Your task to perform on an android device: Clear the cart on costco.com. Search for "razer nari" on costco.com, select the first entry, and add it to the cart. Image 0: 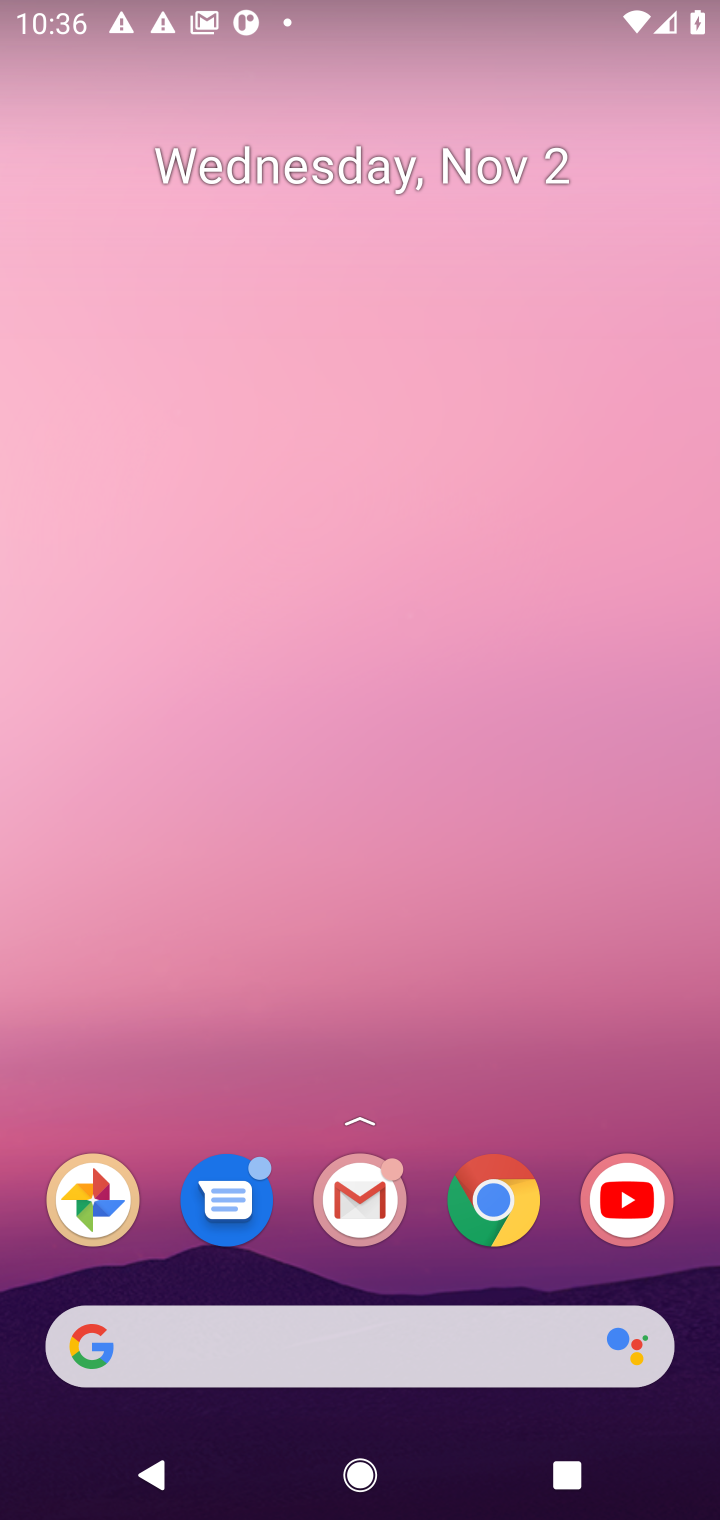
Step 0: click (515, 1214)
Your task to perform on an android device: Clear the cart on costco.com. Search for "razer nari" on costco.com, select the first entry, and add it to the cart. Image 1: 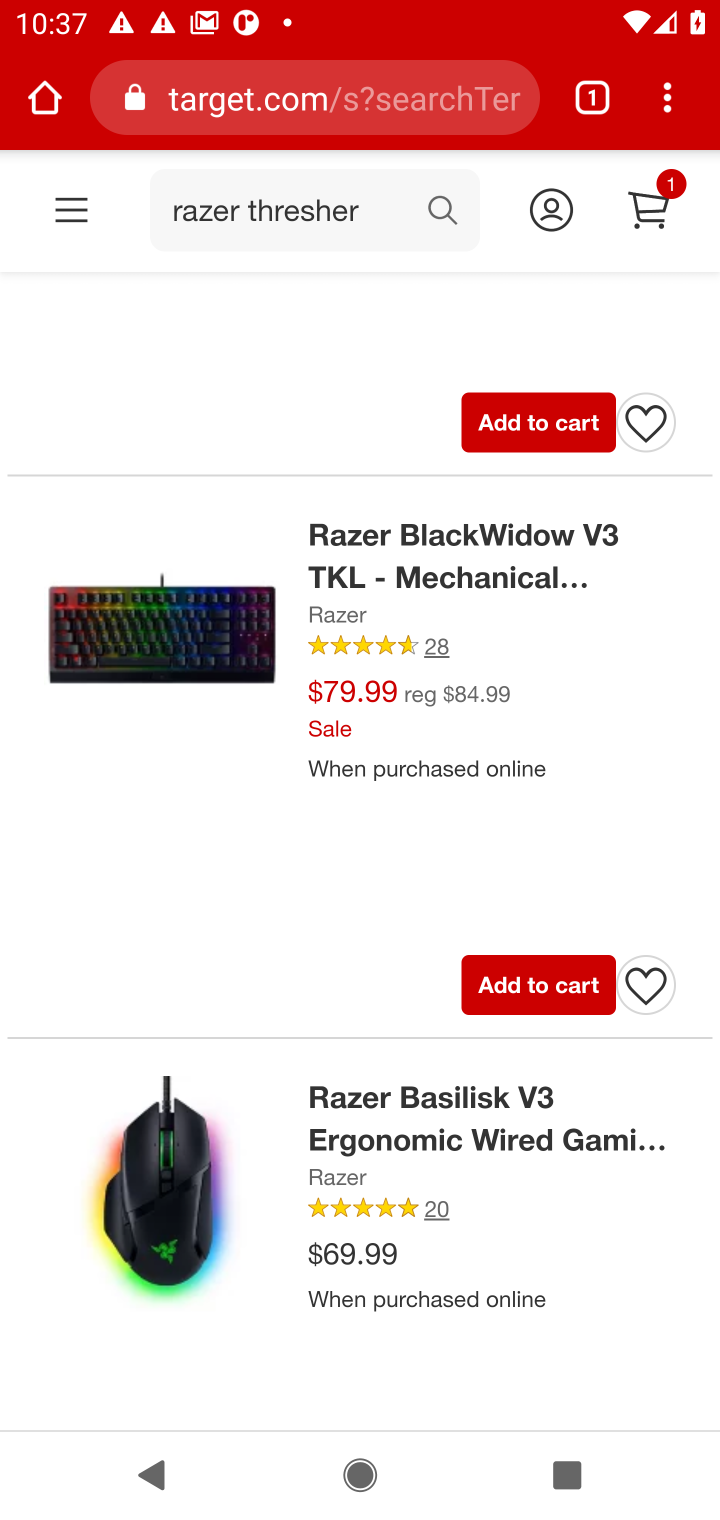
Step 1: click (413, 109)
Your task to perform on an android device: Clear the cart on costco.com. Search for "razer nari" on costco.com, select the first entry, and add it to the cart. Image 2: 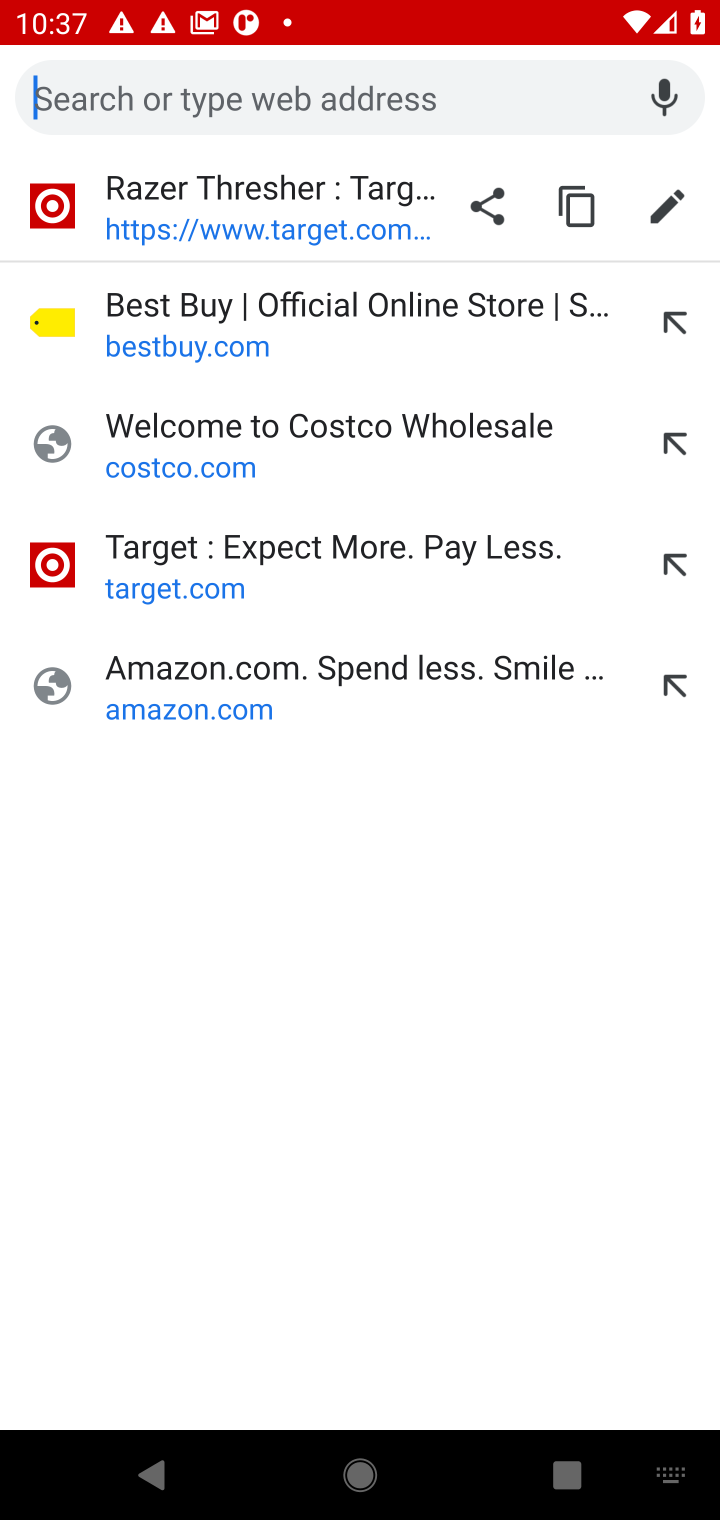
Step 2: click (339, 435)
Your task to perform on an android device: Clear the cart on costco.com. Search for "razer nari" on costco.com, select the first entry, and add it to the cart. Image 3: 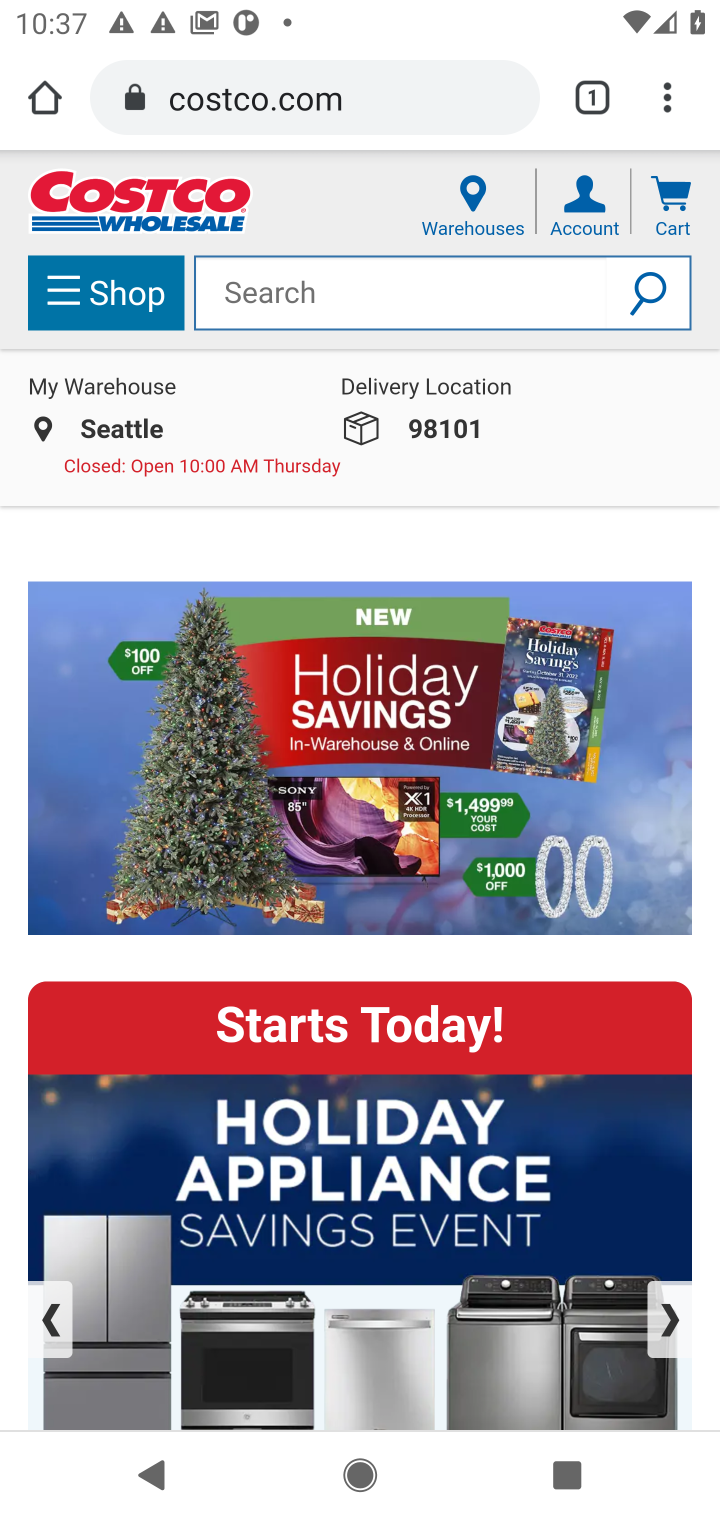
Step 3: click (671, 204)
Your task to perform on an android device: Clear the cart on costco.com. Search for "razer nari" on costco.com, select the first entry, and add it to the cart. Image 4: 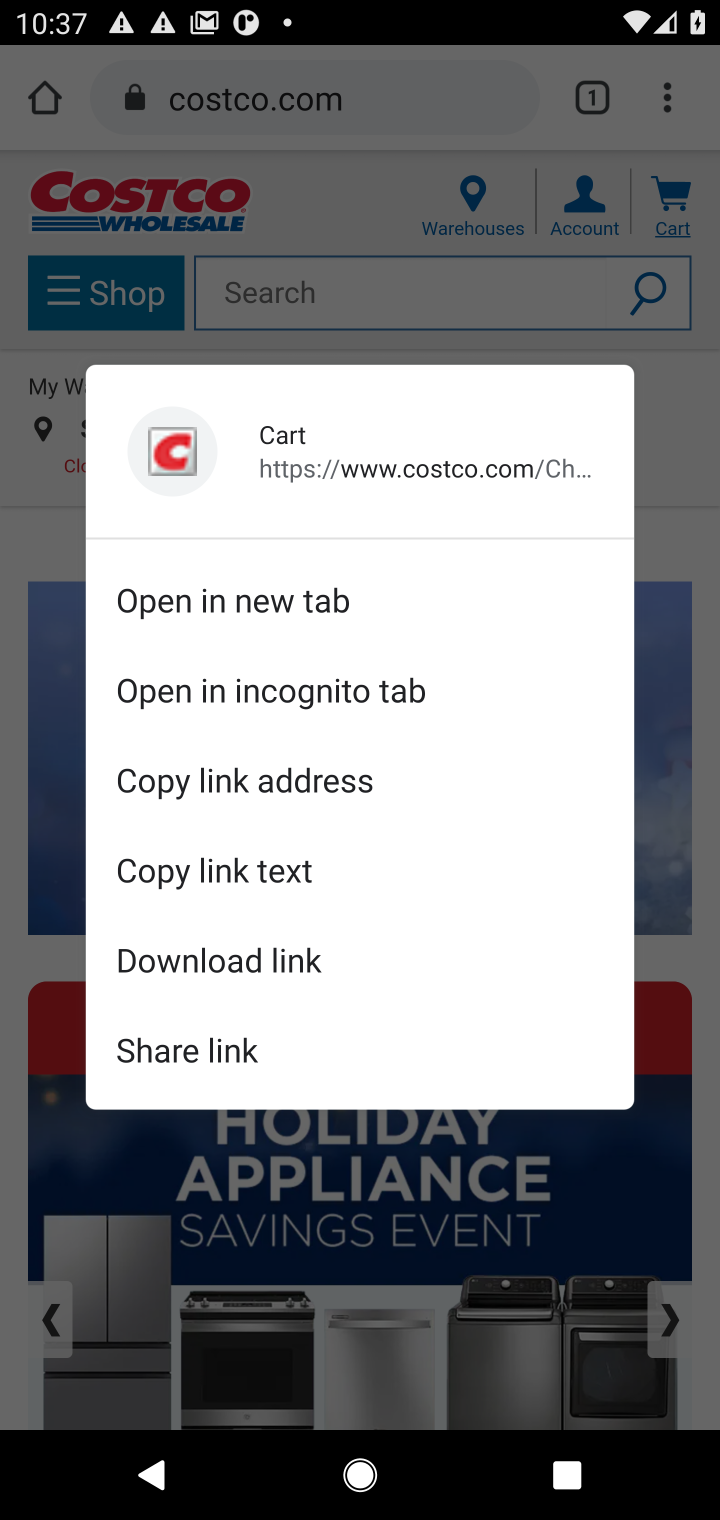
Step 4: click (670, 203)
Your task to perform on an android device: Clear the cart on costco.com. Search for "razer nari" on costco.com, select the first entry, and add it to the cart. Image 5: 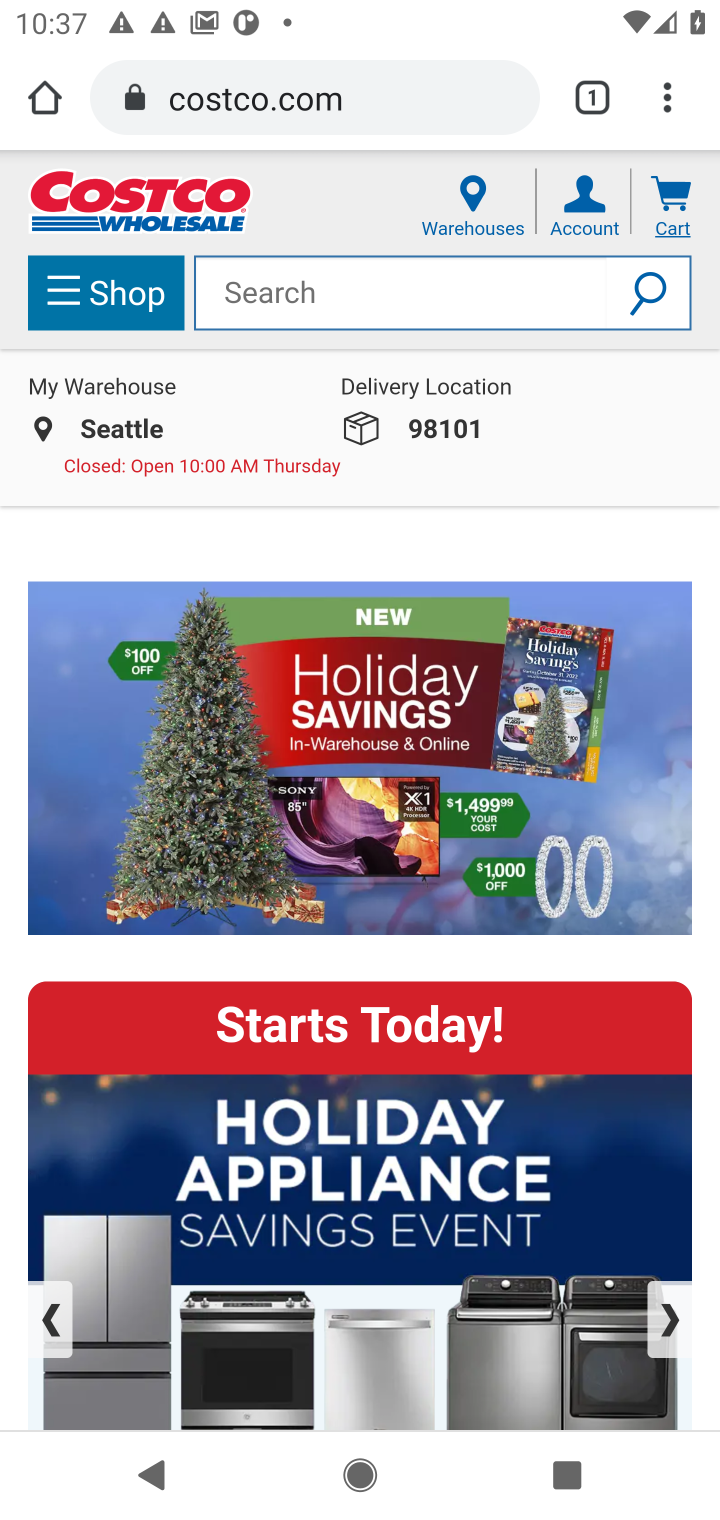
Step 5: click (452, 287)
Your task to perform on an android device: Clear the cart on costco.com. Search for "razer nari" on costco.com, select the first entry, and add it to the cart. Image 6: 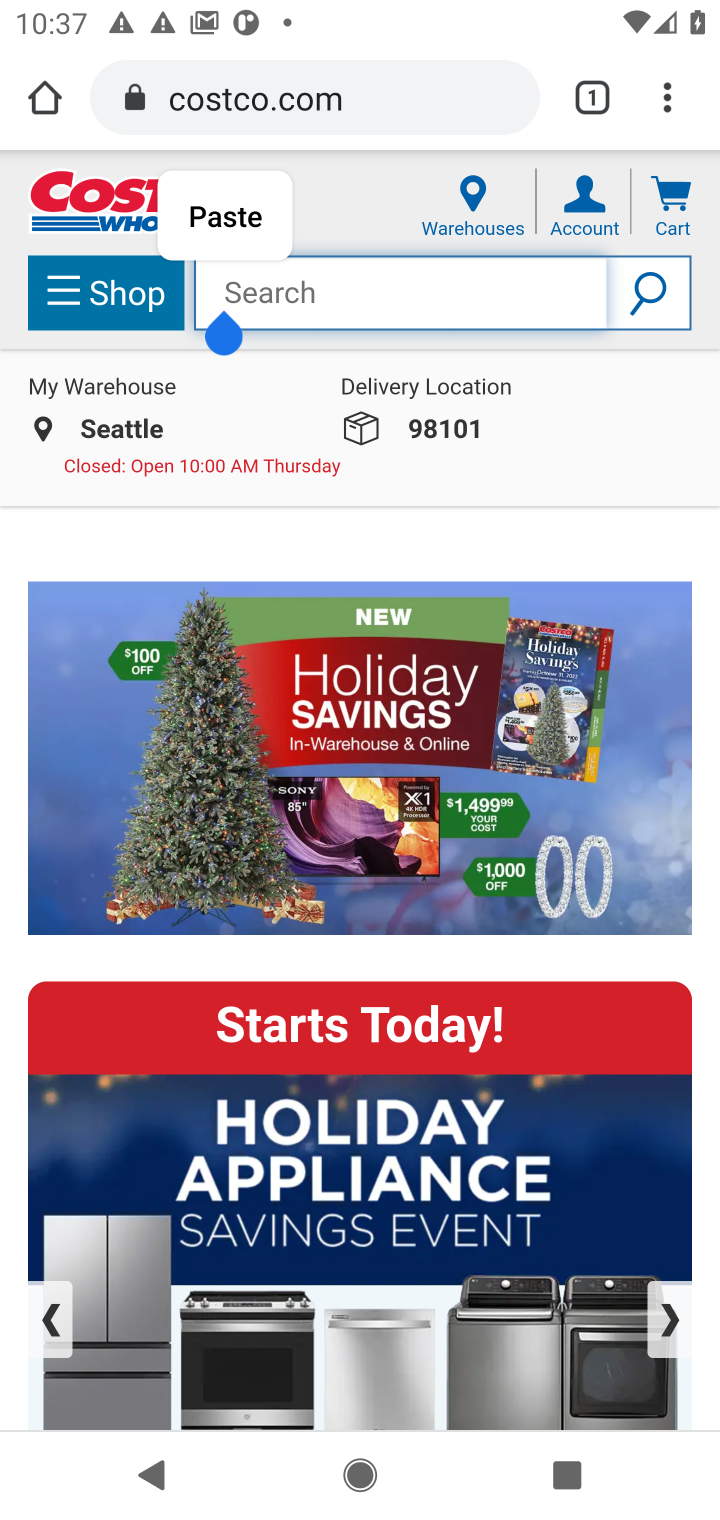
Step 6: type "razer nari"
Your task to perform on an android device: Clear the cart on costco.com. Search for "razer nari" on costco.com, select the first entry, and add it to the cart. Image 7: 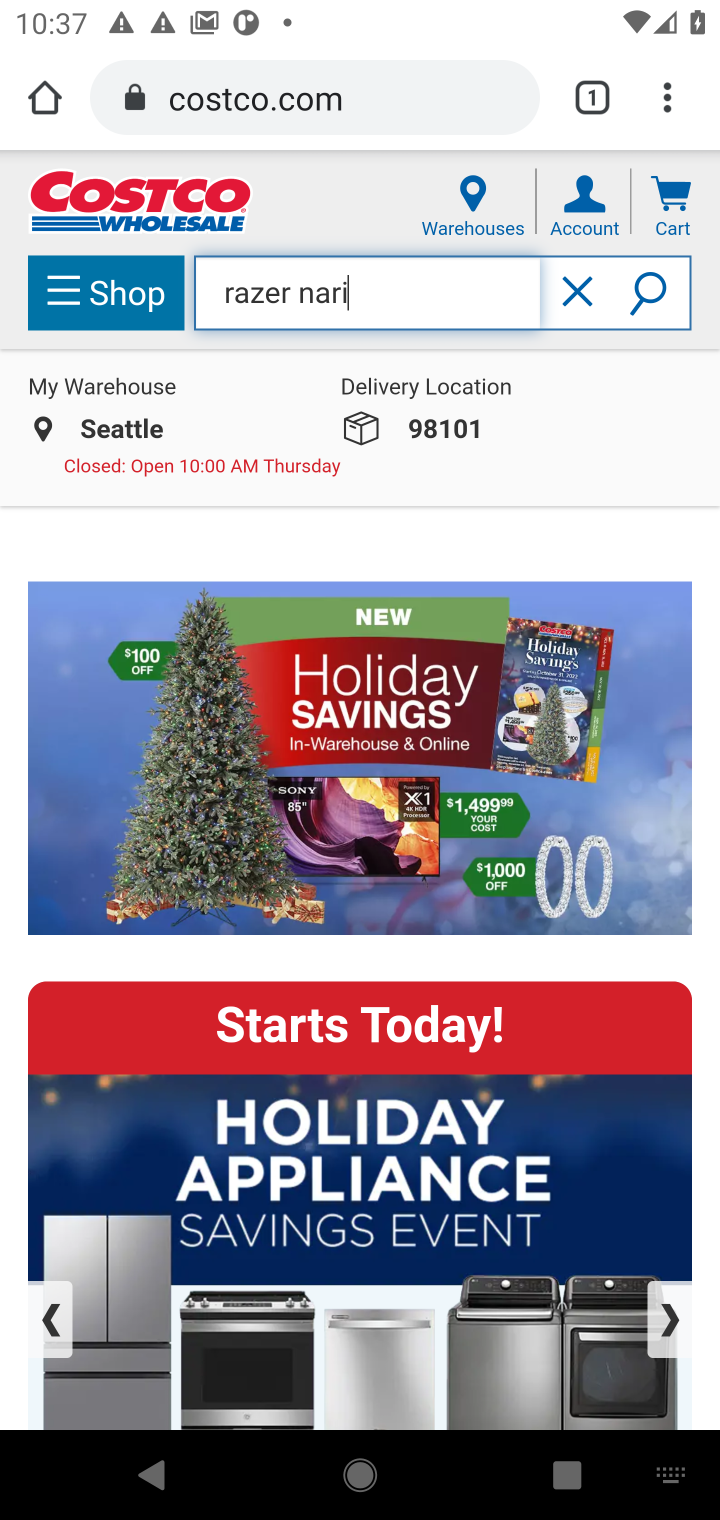
Step 7: press enter
Your task to perform on an android device: Clear the cart on costco.com. Search for "razer nari" on costco.com, select the first entry, and add it to the cart. Image 8: 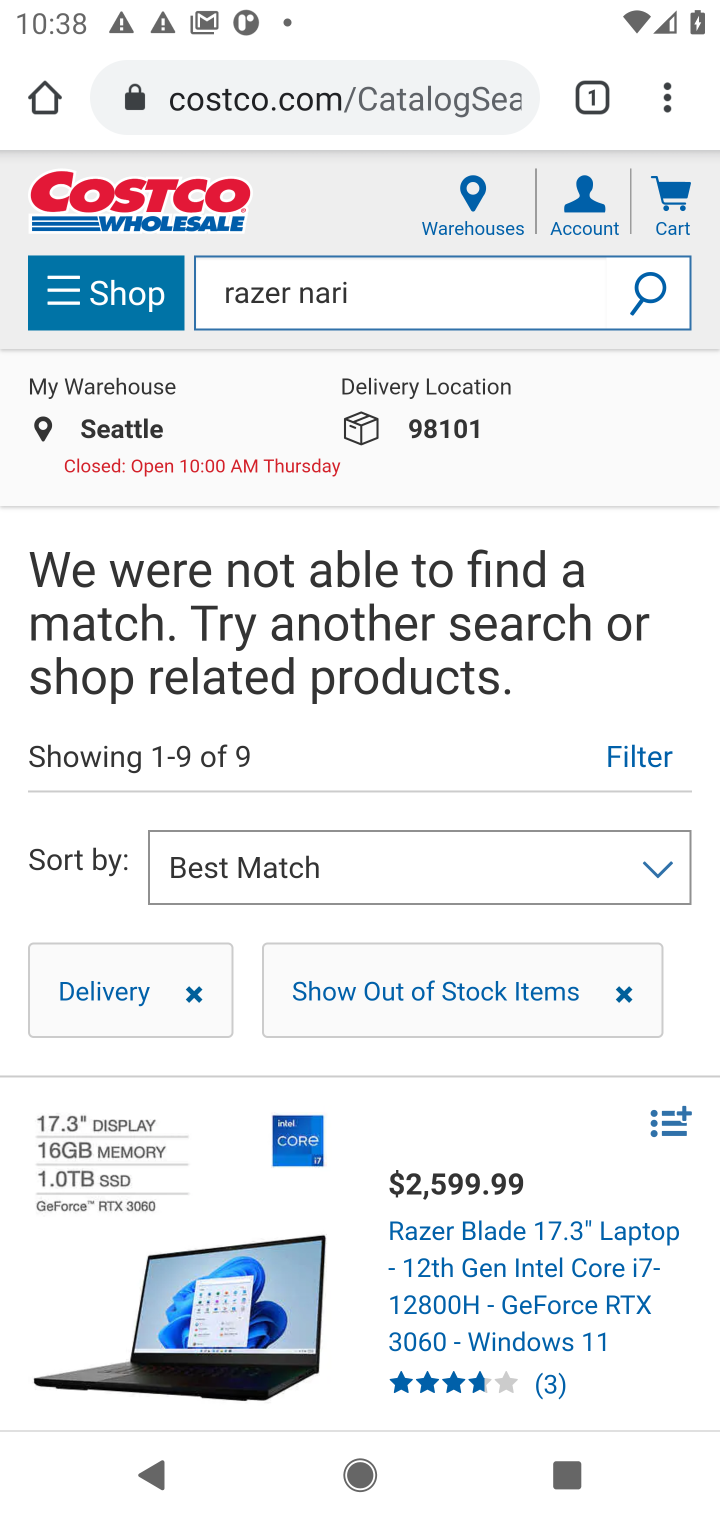
Step 8: task complete